Your task to perform on an android device: Go to network settings Image 0: 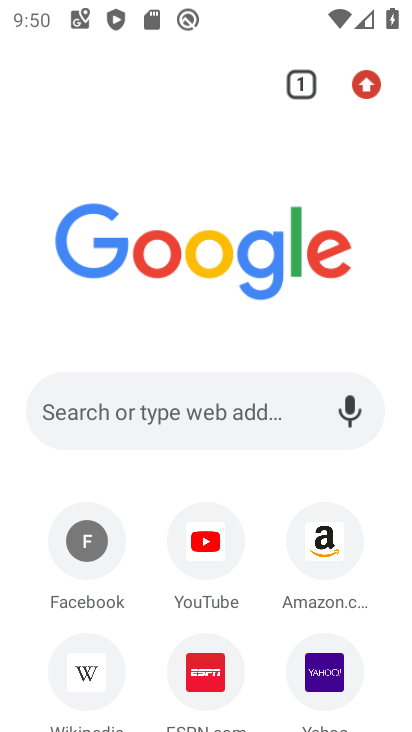
Step 0: press home button
Your task to perform on an android device: Go to network settings Image 1: 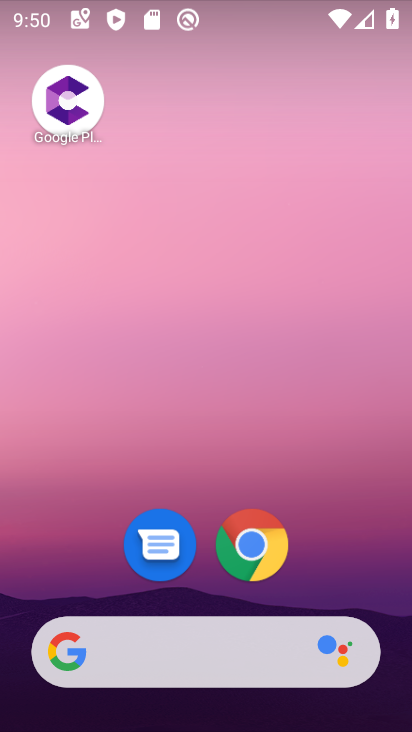
Step 1: drag from (367, 584) to (348, 9)
Your task to perform on an android device: Go to network settings Image 2: 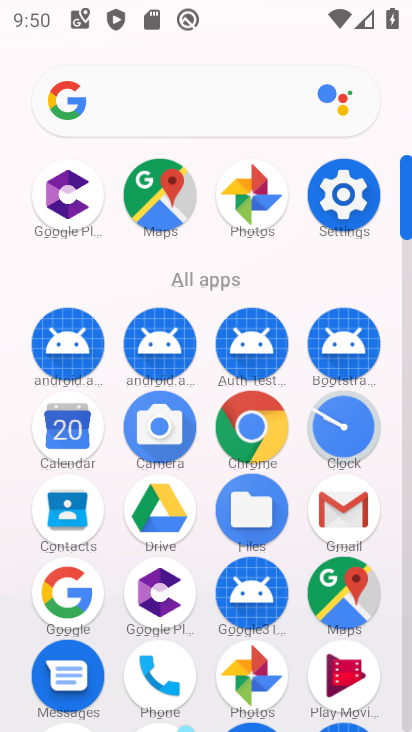
Step 2: click (346, 199)
Your task to perform on an android device: Go to network settings Image 3: 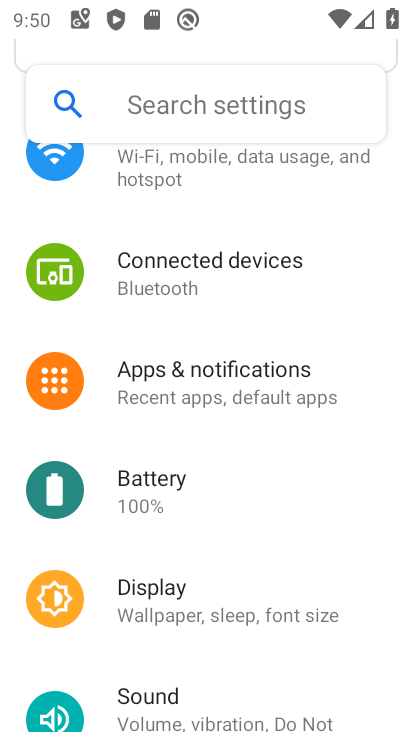
Step 3: drag from (310, 229) to (286, 490)
Your task to perform on an android device: Go to network settings Image 4: 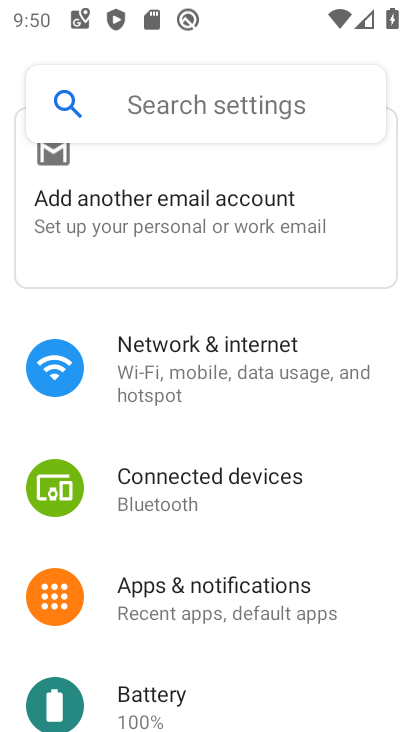
Step 4: click (193, 371)
Your task to perform on an android device: Go to network settings Image 5: 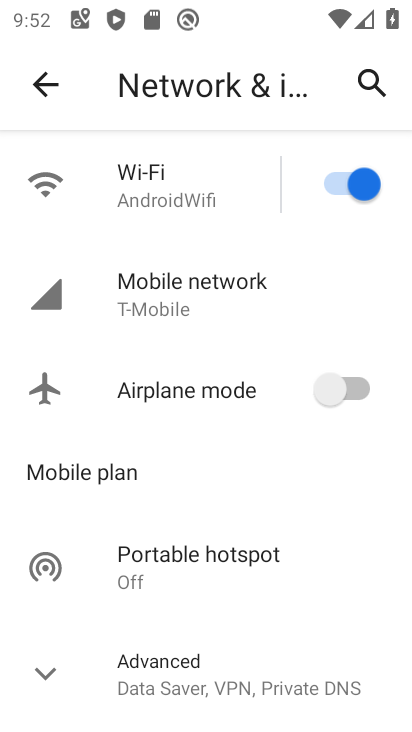
Step 5: click (165, 321)
Your task to perform on an android device: Go to network settings Image 6: 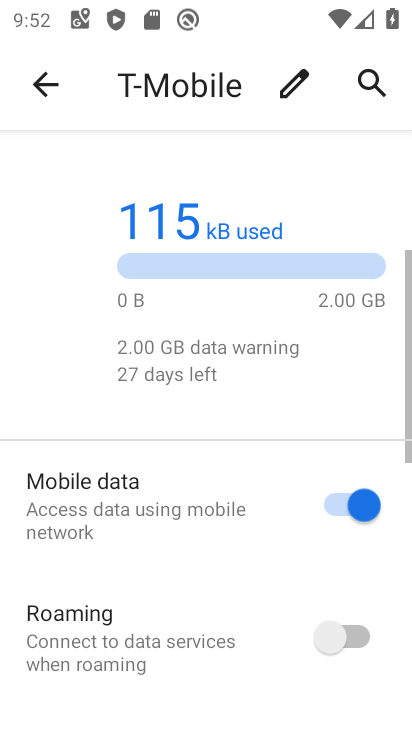
Step 6: drag from (235, 555) to (216, 156)
Your task to perform on an android device: Go to network settings Image 7: 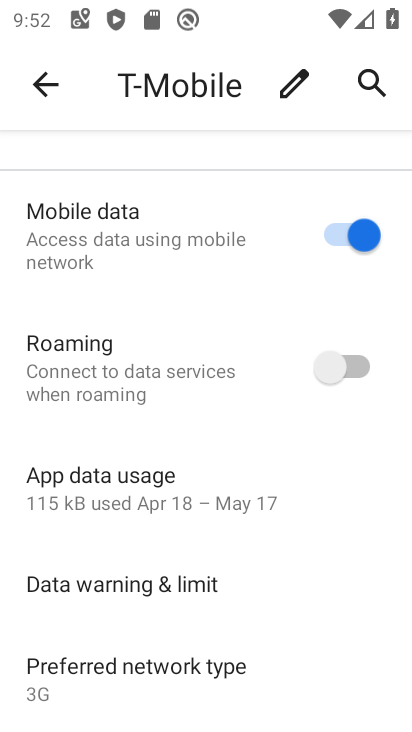
Step 7: drag from (156, 517) to (157, 198)
Your task to perform on an android device: Go to network settings Image 8: 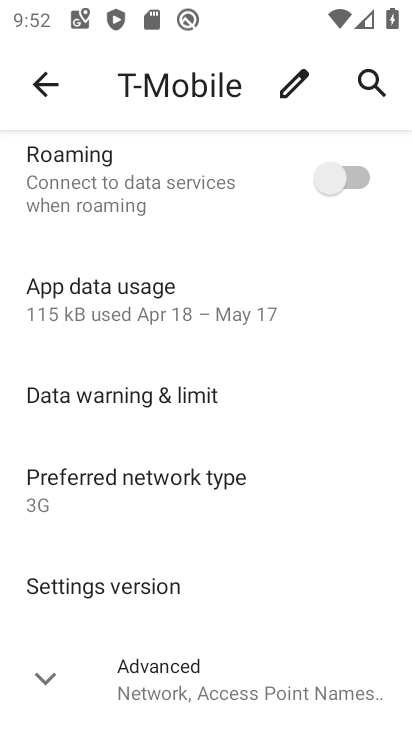
Step 8: drag from (186, 495) to (179, 226)
Your task to perform on an android device: Go to network settings Image 9: 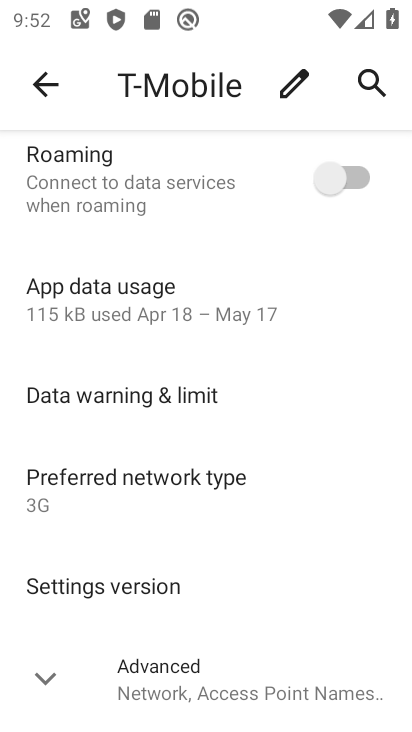
Step 9: click (50, 688)
Your task to perform on an android device: Go to network settings Image 10: 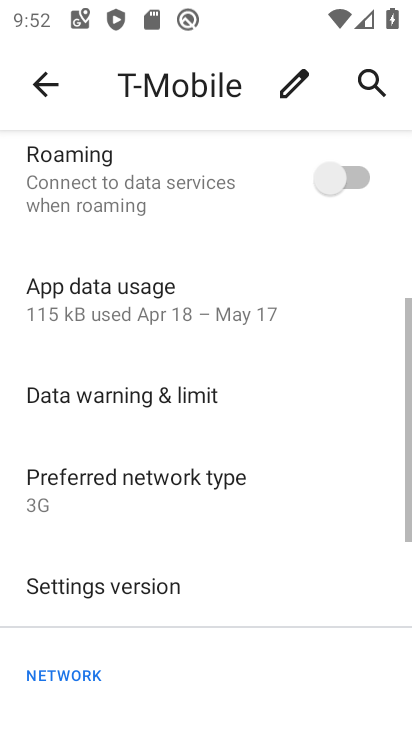
Step 10: task complete